Your task to perform on an android device: Open calendar and show me the first week of next month Image 0: 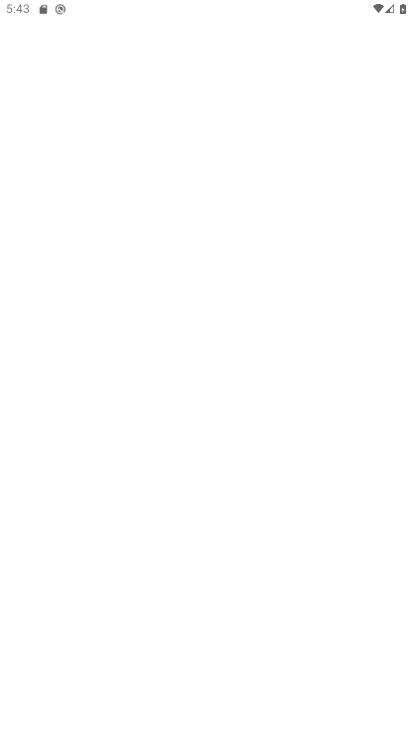
Step 0: drag from (276, 603) to (265, 443)
Your task to perform on an android device: Open calendar and show me the first week of next month Image 1: 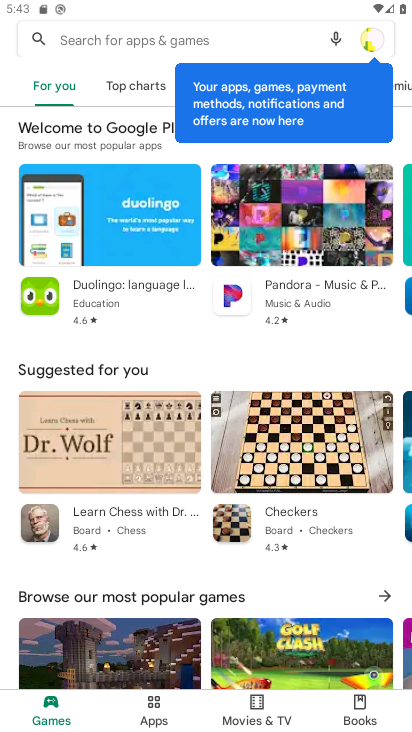
Step 1: press home button
Your task to perform on an android device: Open calendar and show me the first week of next month Image 2: 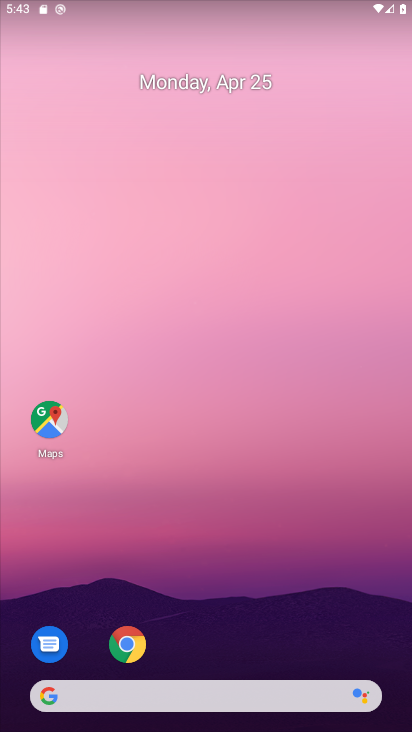
Step 2: drag from (203, 592) to (258, 72)
Your task to perform on an android device: Open calendar and show me the first week of next month Image 3: 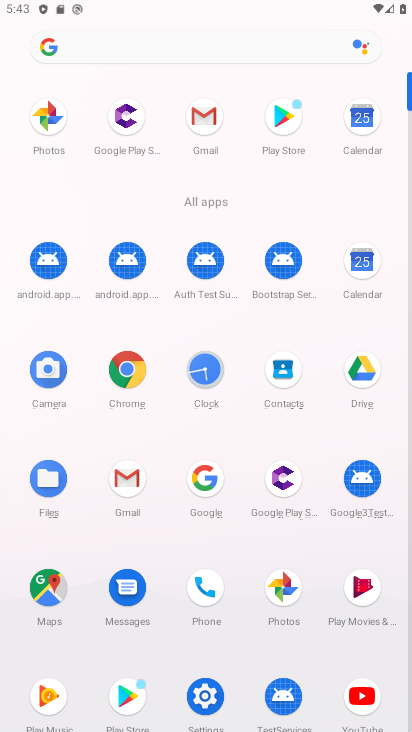
Step 3: click (362, 116)
Your task to perform on an android device: Open calendar and show me the first week of next month Image 4: 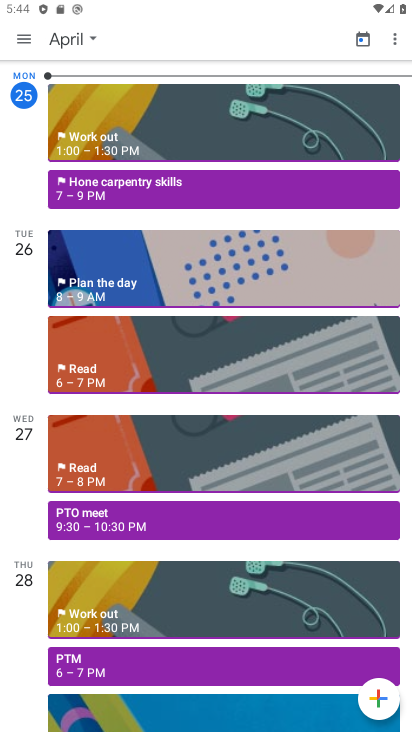
Step 4: click (15, 42)
Your task to perform on an android device: Open calendar and show me the first week of next month Image 5: 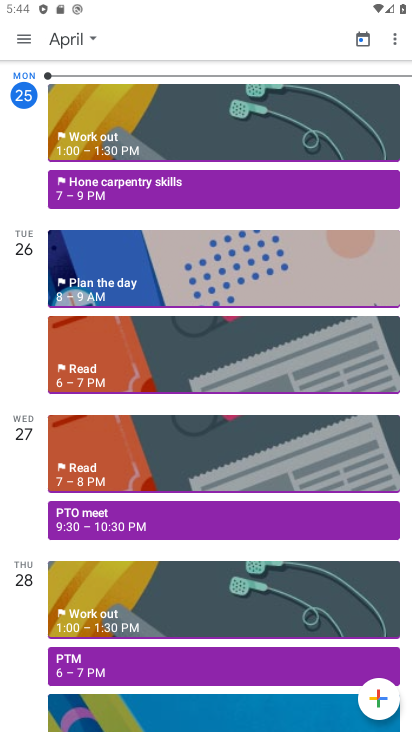
Step 5: click (25, 38)
Your task to perform on an android device: Open calendar and show me the first week of next month Image 6: 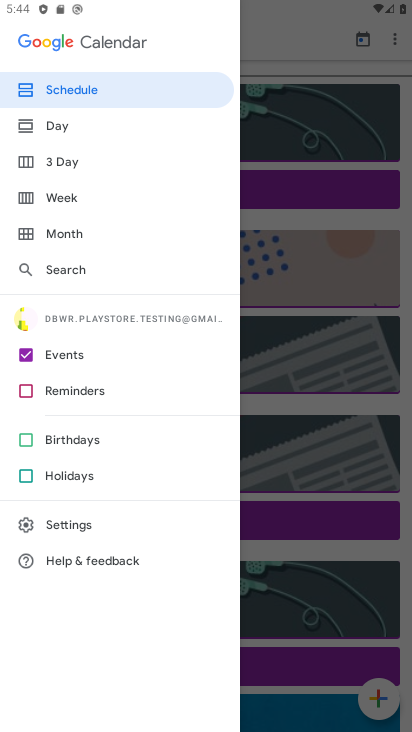
Step 6: click (71, 195)
Your task to perform on an android device: Open calendar and show me the first week of next month Image 7: 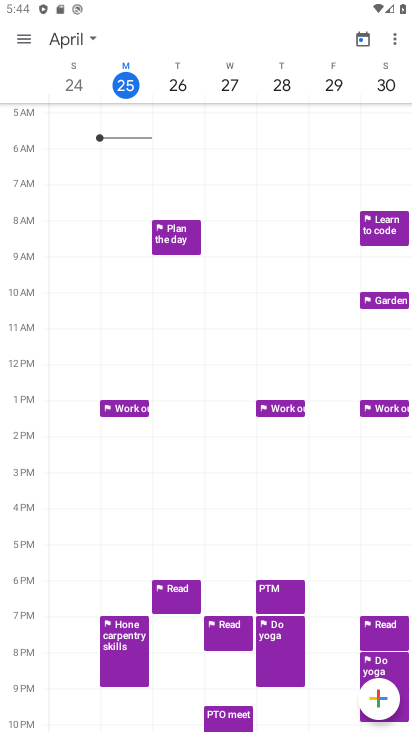
Step 7: click (91, 42)
Your task to perform on an android device: Open calendar and show me the first week of next month Image 8: 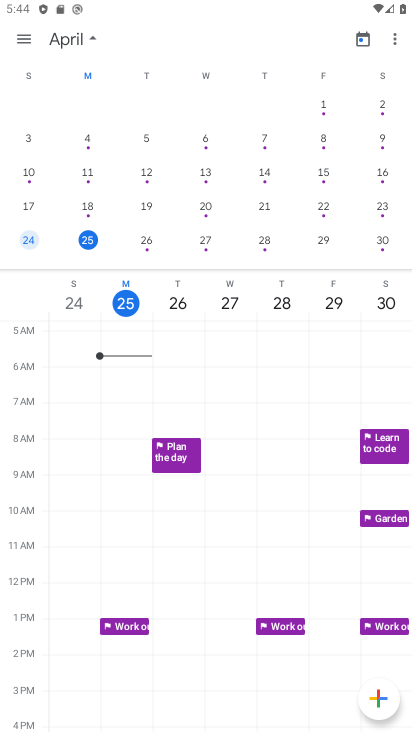
Step 8: task complete